Your task to perform on an android device: When is my next appointment? Image 0: 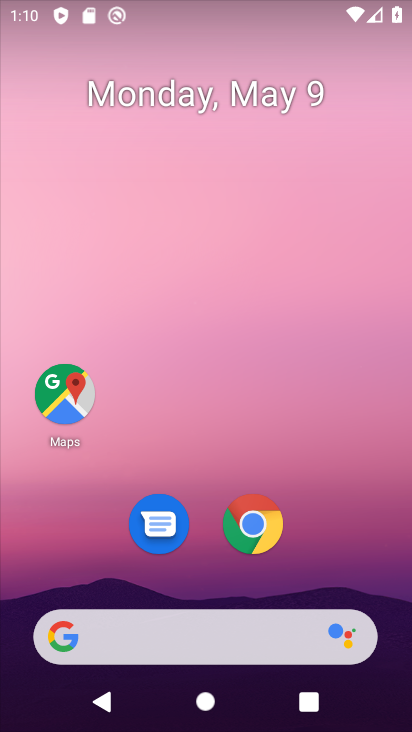
Step 0: drag from (336, 510) to (363, 26)
Your task to perform on an android device: When is my next appointment? Image 1: 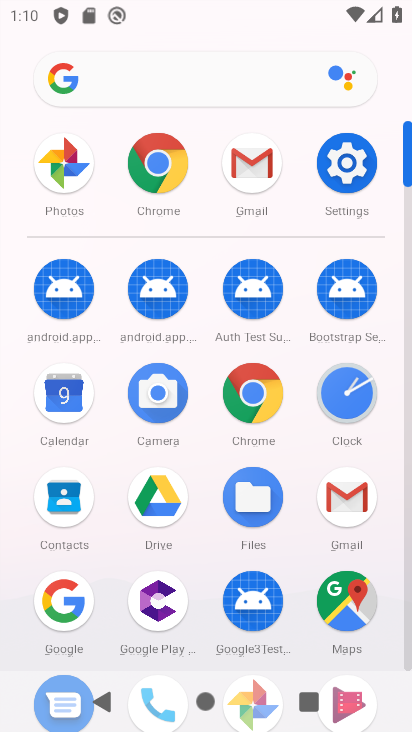
Step 1: click (66, 399)
Your task to perform on an android device: When is my next appointment? Image 2: 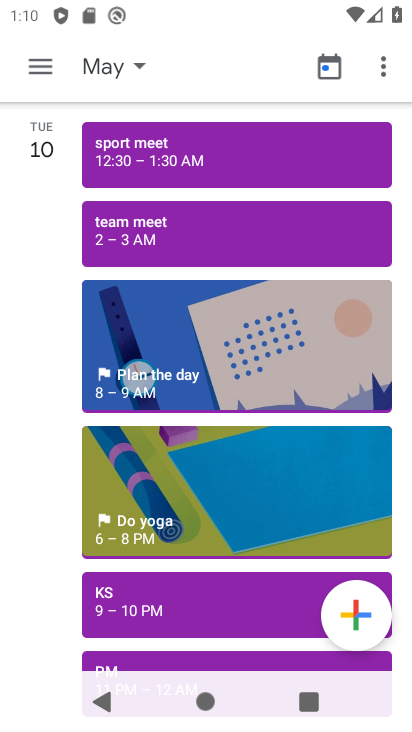
Step 2: task complete